Your task to perform on an android device: What's the weather? Image 0: 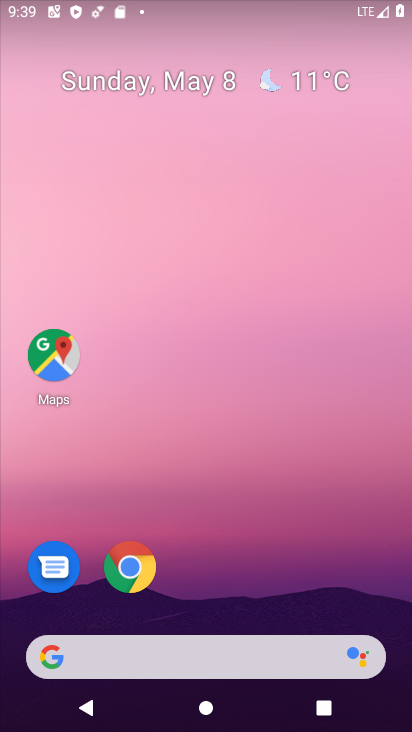
Step 0: click (313, 71)
Your task to perform on an android device: What's the weather? Image 1: 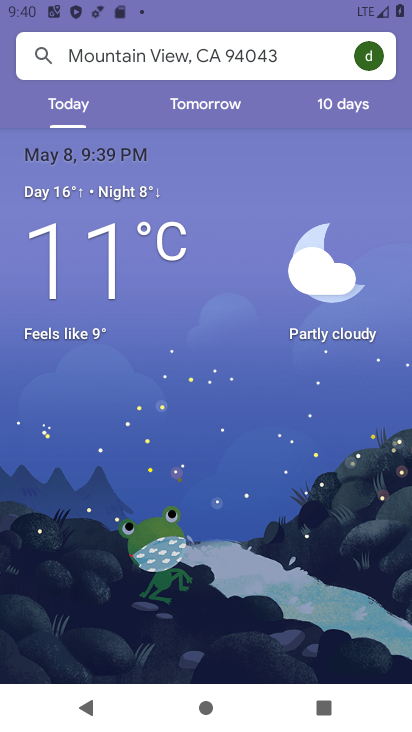
Step 1: task complete